Your task to perform on an android device: Check the news Image 0: 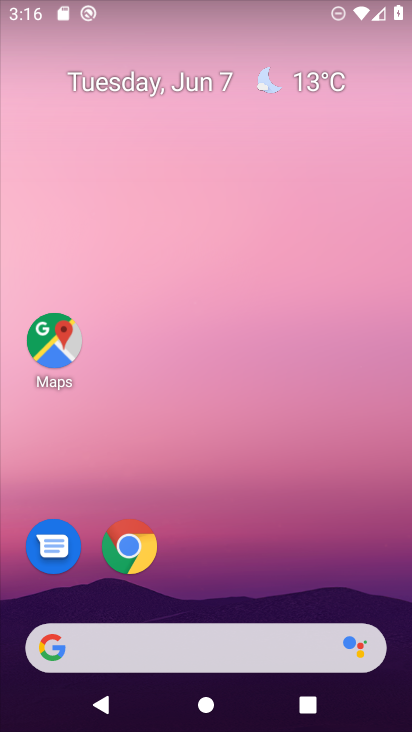
Step 0: press home button
Your task to perform on an android device: Check the news Image 1: 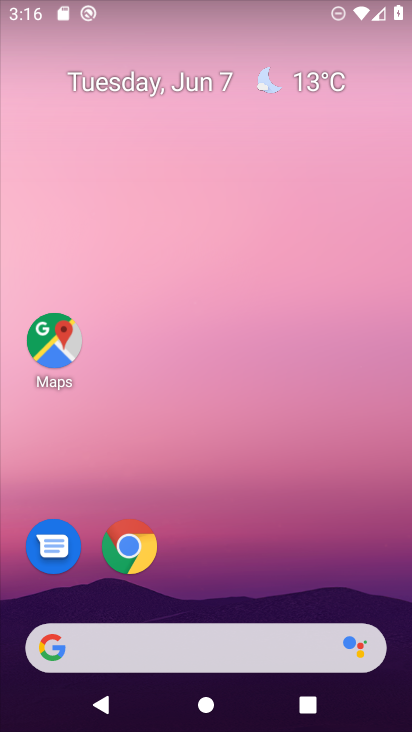
Step 1: click (182, 646)
Your task to perform on an android device: Check the news Image 2: 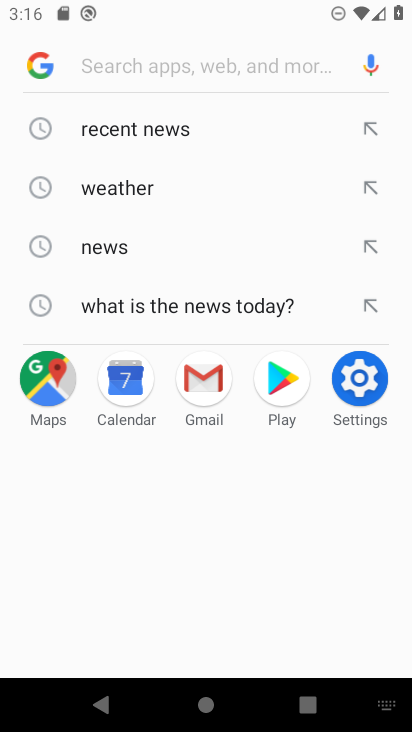
Step 2: click (105, 250)
Your task to perform on an android device: Check the news Image 3: 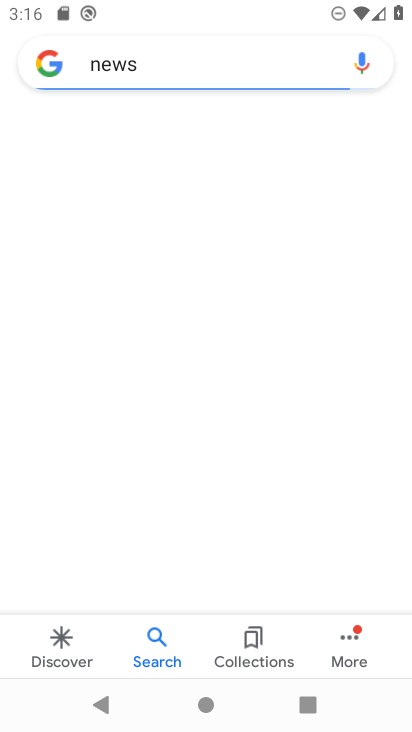
Step 3: task complete